Your task to perform on an android device: check storage Image 0: 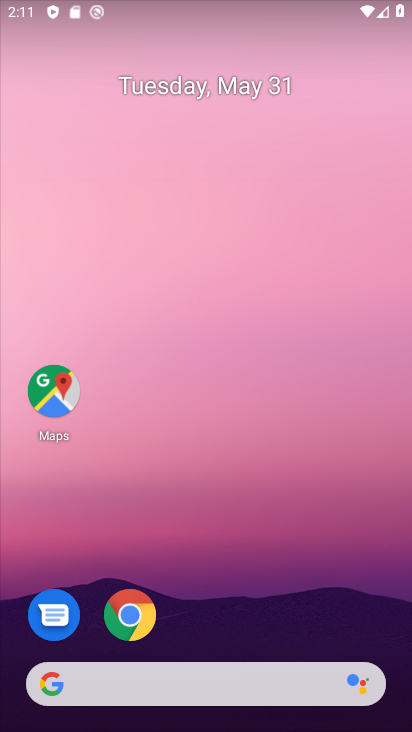
Step 0: click (184, 197)
Your task to perform on an android device: check storage Image 1: 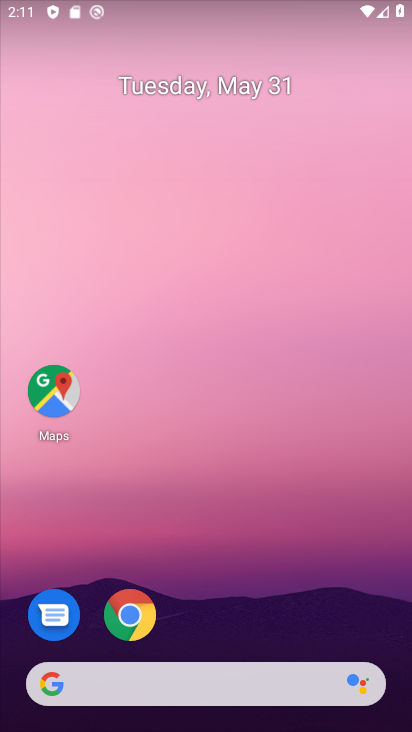
Step 1: drag from (226, 438) to (153, 26)
Your task to perform on an android device: check storage Image 2: 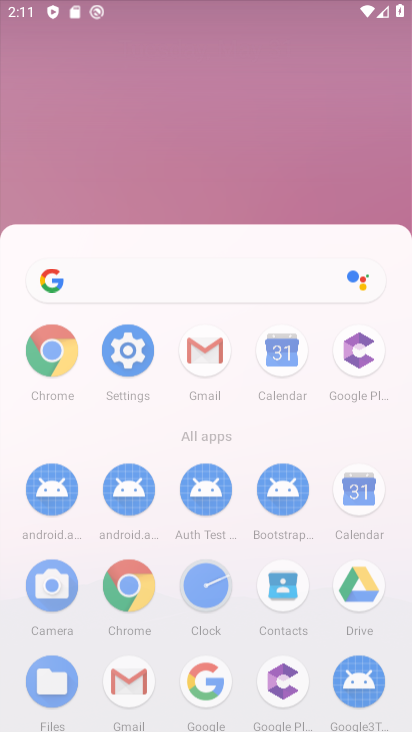
Step 2: drag from (250, 619) to (206, 2)
Your task to perform on an android device: check storage Image 3: 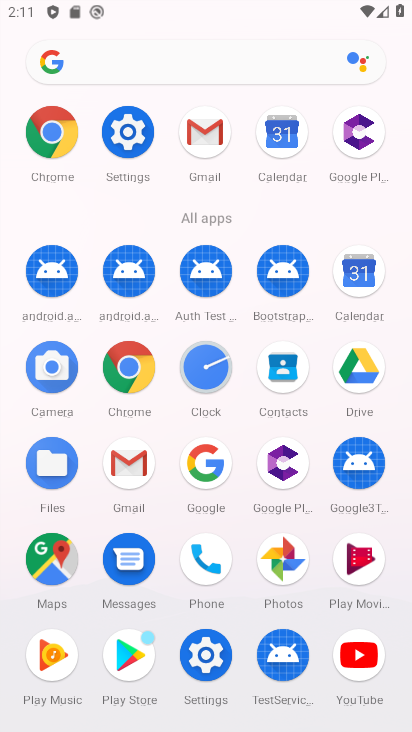
Step 3: click (129, 128)
Your task to perform on an android device: check storage Image 4: 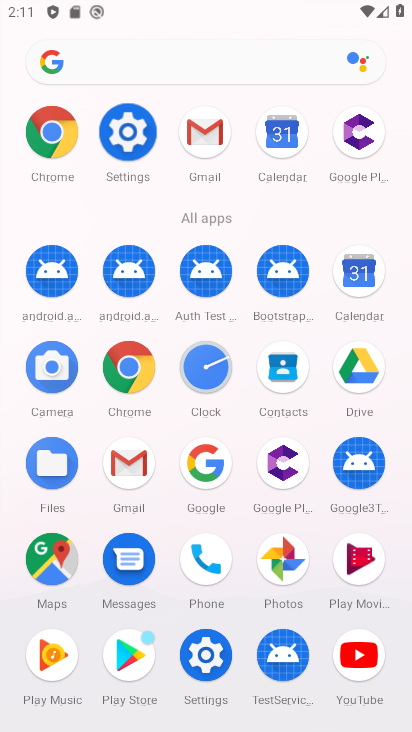
Step 4: click (124, 134)
Your task to perform on an android device: check storage Image 5: 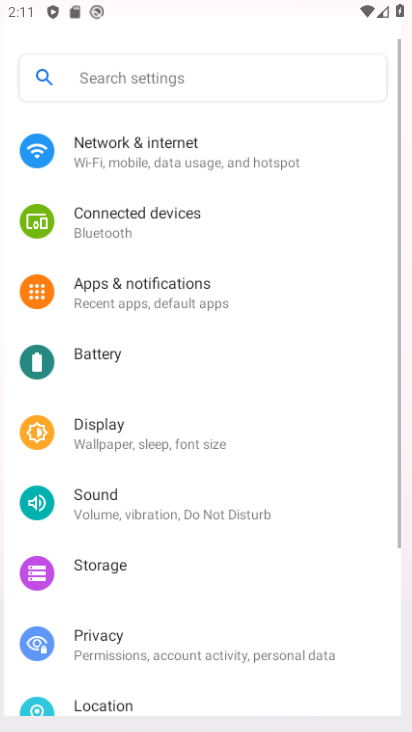
Step 5: click (114, 137)
Your task to perform on an android device: check storage Image 6: 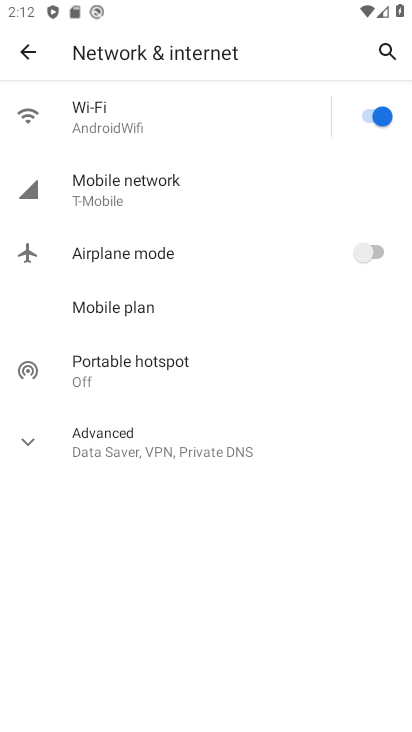
Step 6: click (20, 52)
Your task to perform on an android device: check storage Image 7: 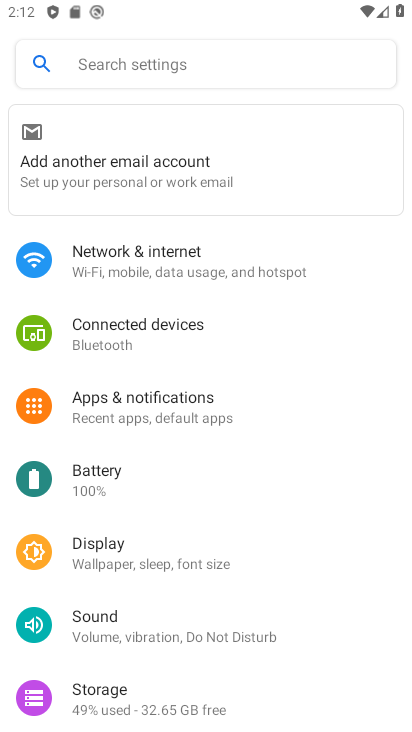
Step 7: click (163, 80)
Your task to perform on an android device: check storage Image 8: 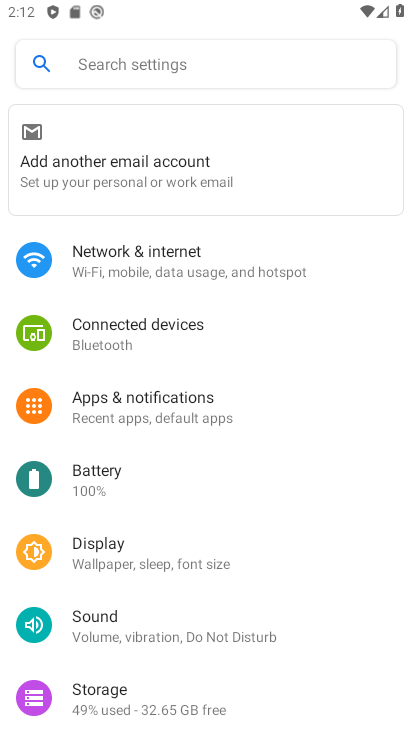
Step 8: click (87, 693)
Your task to perform on an android device: check storage Image 9: 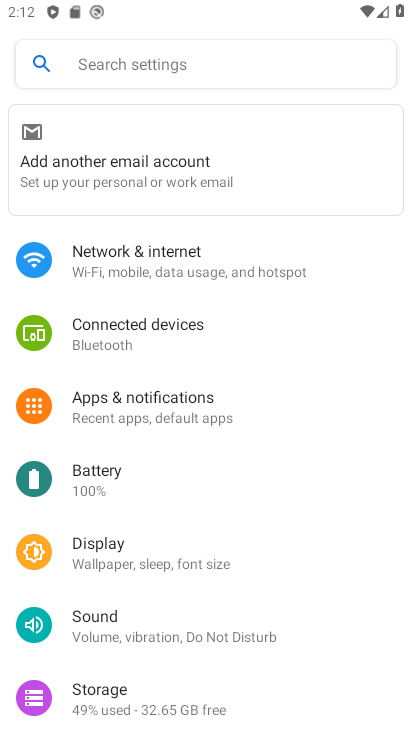
Step 9: click (89, 689)
Your task to perform on an android device: check storage Image 10: 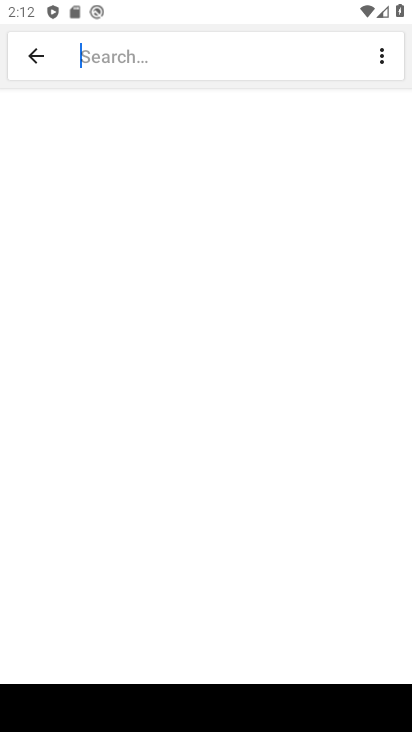
Step 10: click (88, 689)
Your task to perform on an android device: check storage Image 11: 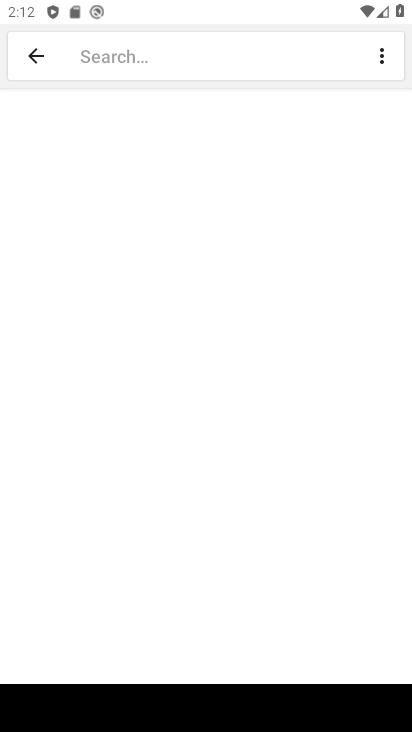
Step 11: task complete